Your task to perform on an android device: Go to Google Image 0: 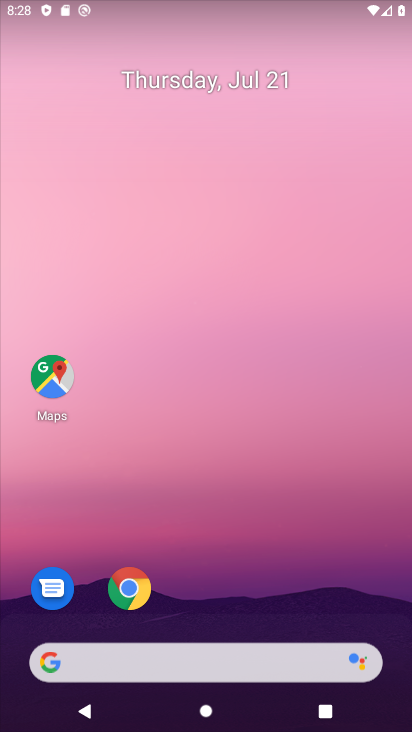
Step 0: drag from (327, 576) to (354, 69)
Your task to perform on an android device: Go to Google Image 1: 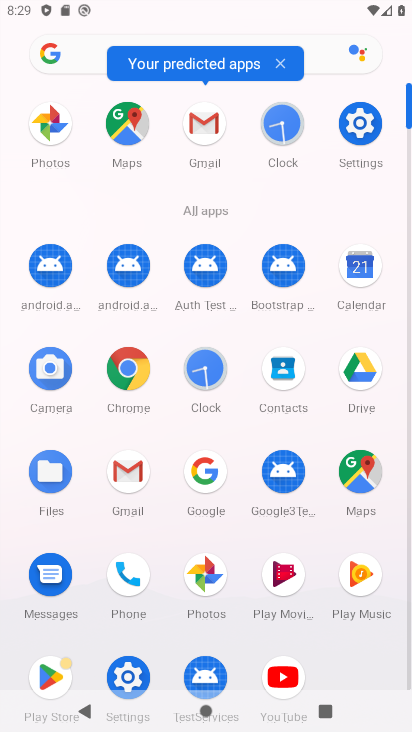
Step 1: click (213, 463)
Your task to perform on an android device: Go to Google Image 2: 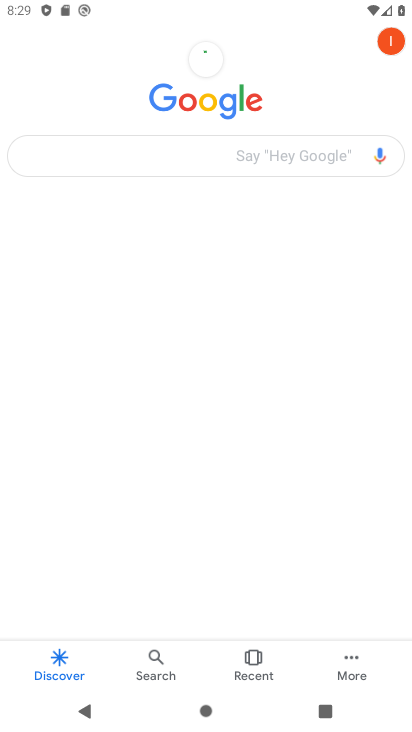
Step 2: task complete